Your task to perform on an android device: change the clock display to digital Image 0: 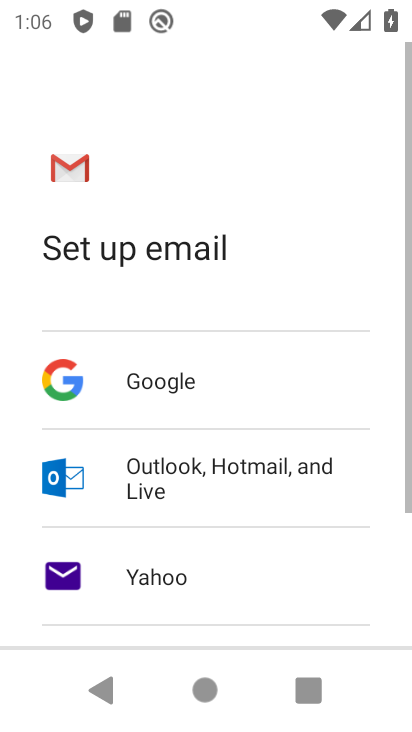
Step 0: press home button
Your task to perform on an android device: change the clock display to digital Image 1: 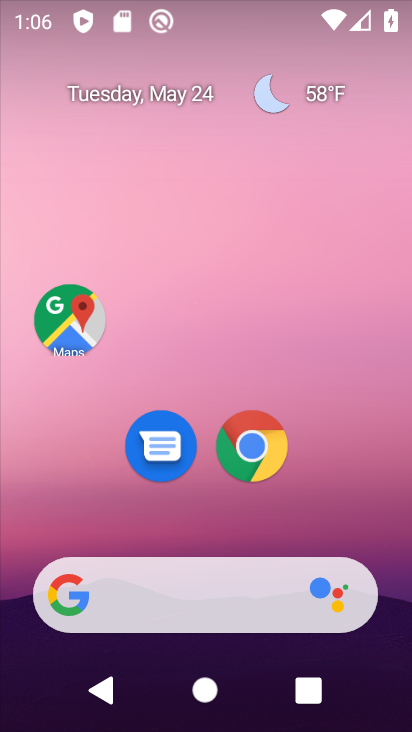
Step 1: drag from (265, 641) to (256, 245)
Your task to perform on an android device: change the clock display to digital Image 2: 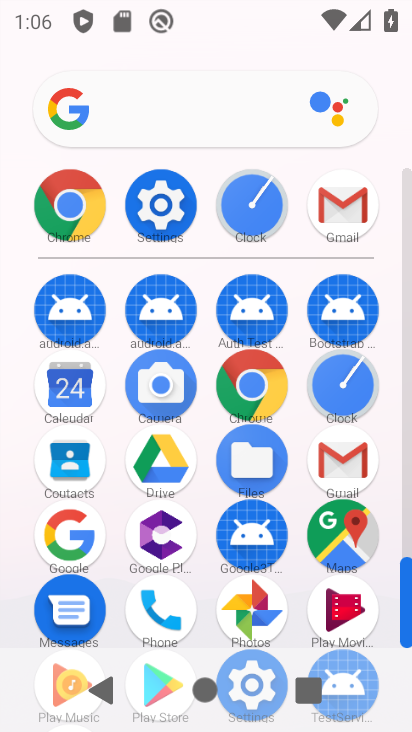
Step 2: click (342, 411)
Your task to perform on an android device: change the clock display to digital Image 3: 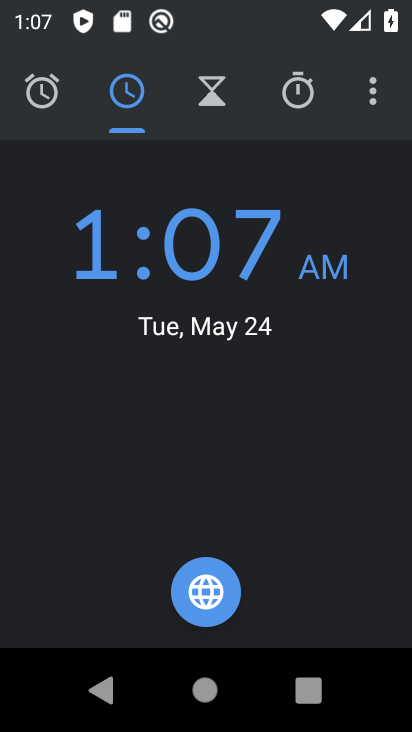
Step 3: click (379, 96)
Your task to perform on an android device: change the clock display to digital Image 4: 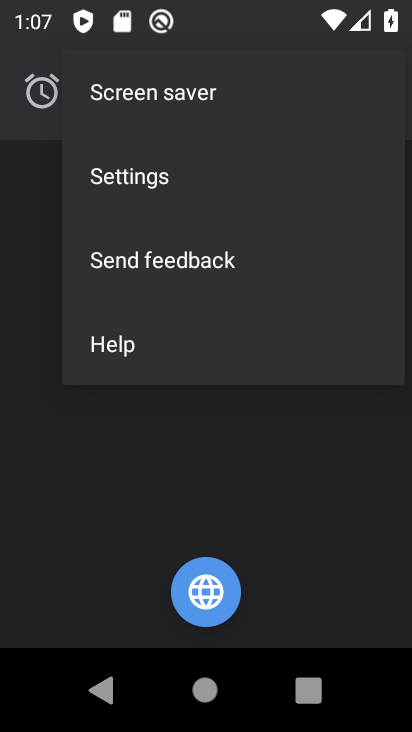
Step 4: click (205, 178)
Your task to perform on an android device: change the clock display to digital Image 5: 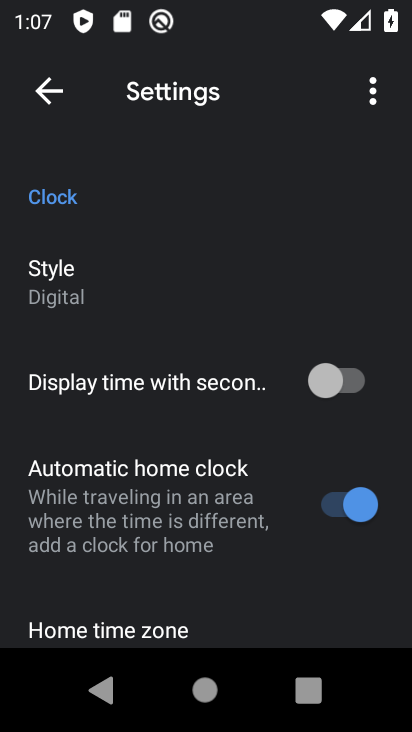
Step 5: drag from (145, 536) to (172, 343)
Your task to perform on an android device: change the clock display to digital Image 6: 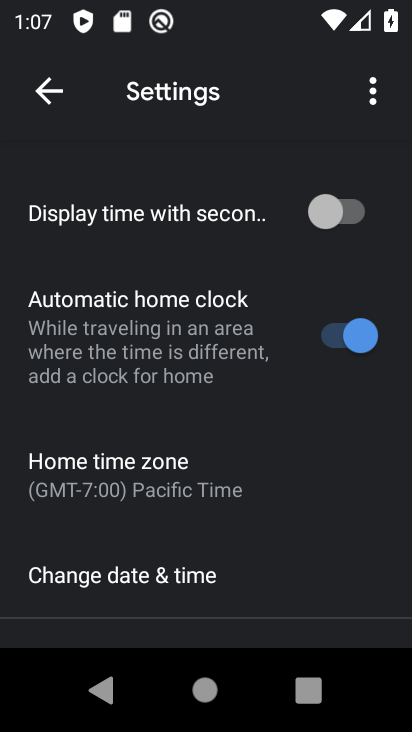
Step 6: drag from (201, 562) to (215, 493)
Your task to perform on an android device: change the clock display to digital Image 7: 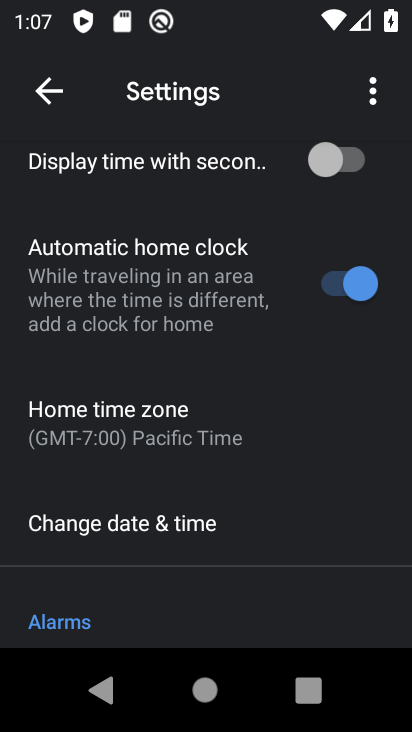
Step 7: drag from (223, 596) to (304, 396)
Your task to perform on an android device: change the clock display to digital Image 8: 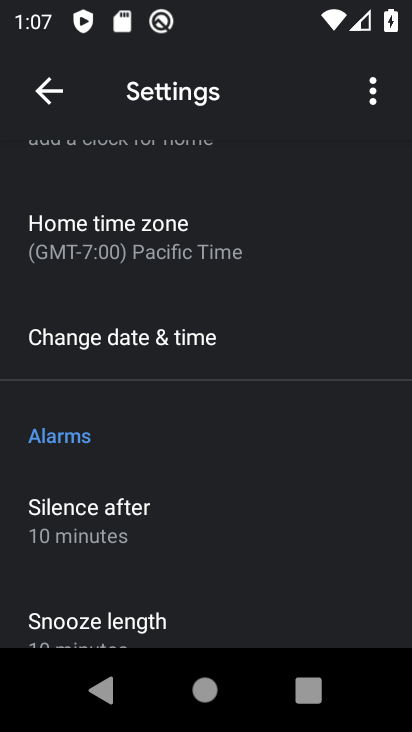
Step 8: drag from (247, 609) to (244, 287)
Your task to perform on an android device: change the clock display to digital Image 9: 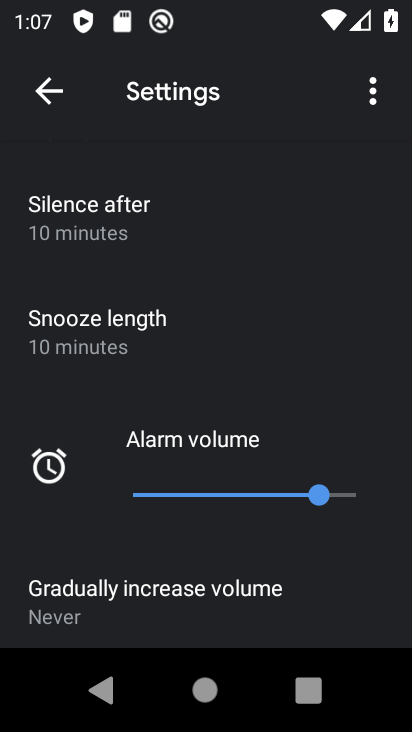
Step 9: drag from (246, 245) to (202, 610)
Your task to perform on an android device: change the clock display to digital Image 10: 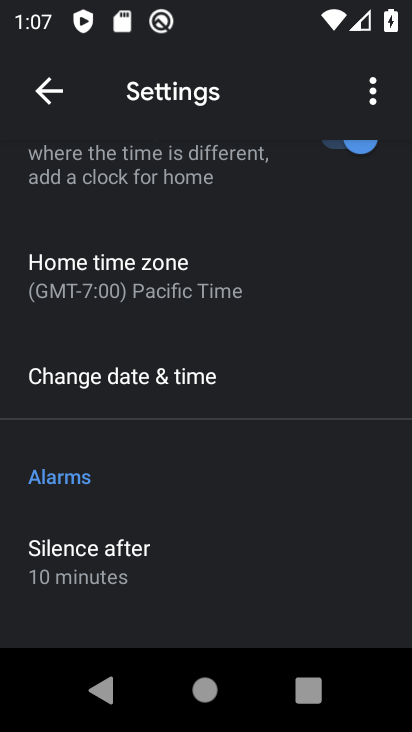
Step 10: drag from (271, 264) to (254, 364)
Your task to perform on an android device: change the clock display to digital Image 11: 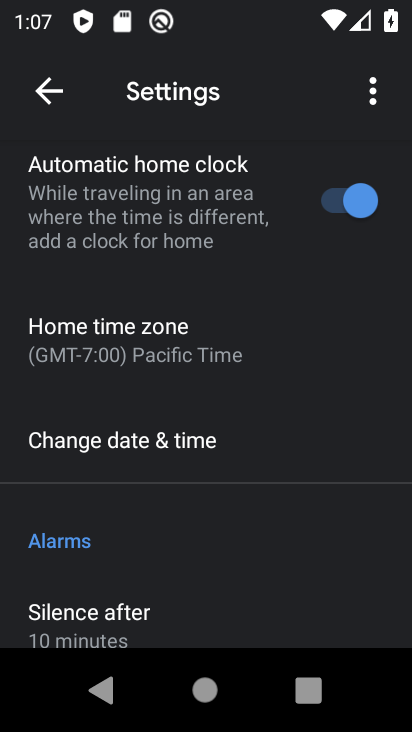
Step 11: drag from (265, 312) to (249, 439)
Your task to perform on an android device: change the clock display to digital Image 12: 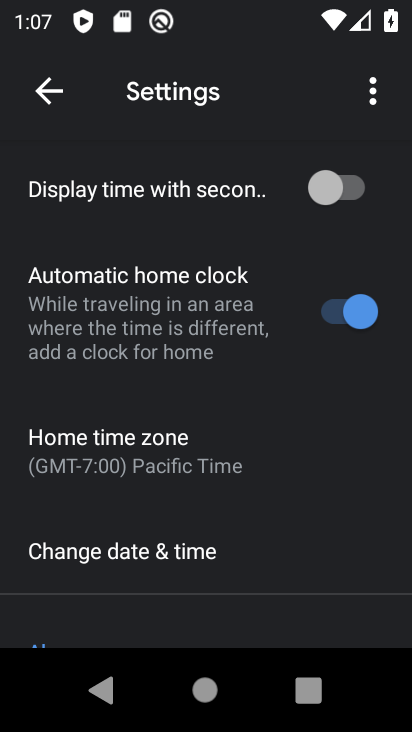
Step 12: drag from (274, 188) to (184, 508)
Your task to perform on an android device: change the clock display to digital Image 13: 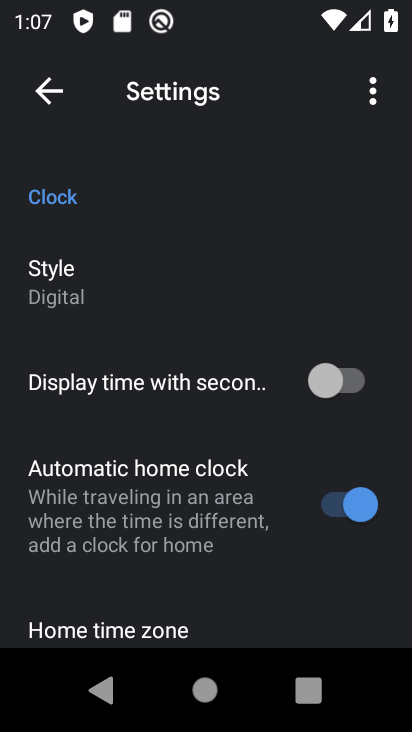
Step 13: click (102, 294)
Your task to perform on an android device: change the clock display to digital Image 14: 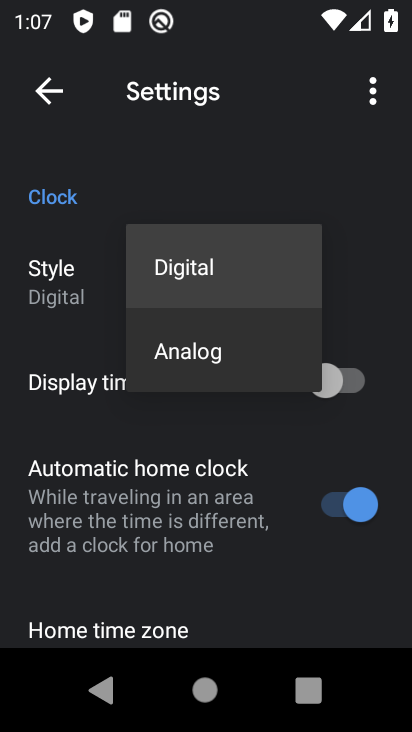
Step 14: task complete